Your task to perform on an android device: turn off location Image 0: 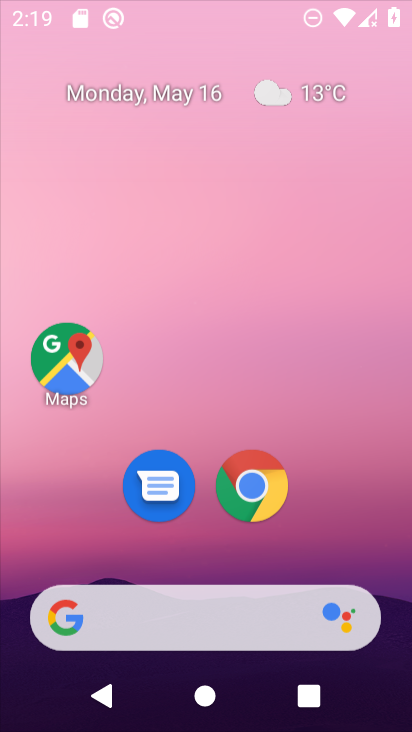
Step 0: click (311, 79)
Your task to perform on an android device: turn off location Image 1: 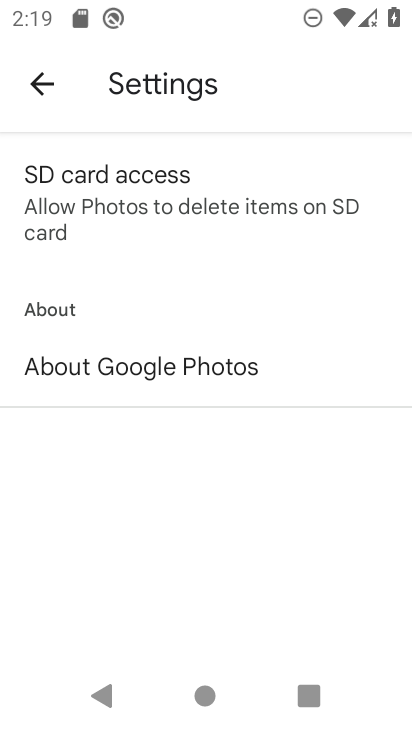
Step 1: click (38, 77)
Your task to perform on an android device: turn off location Image 2: 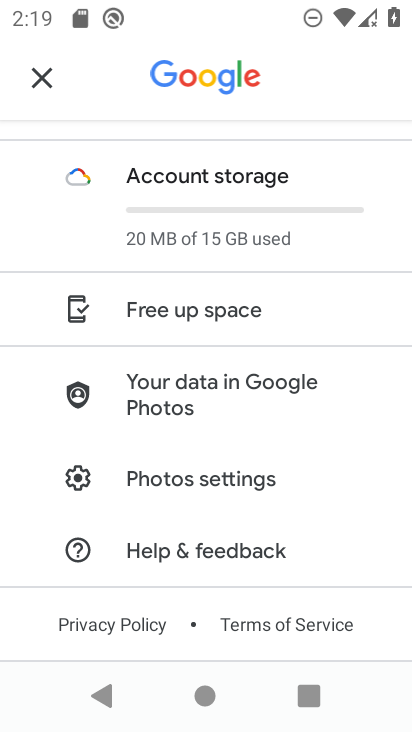
Step 2: press home button
Your task to perform on an android device: turn off location Image 3: 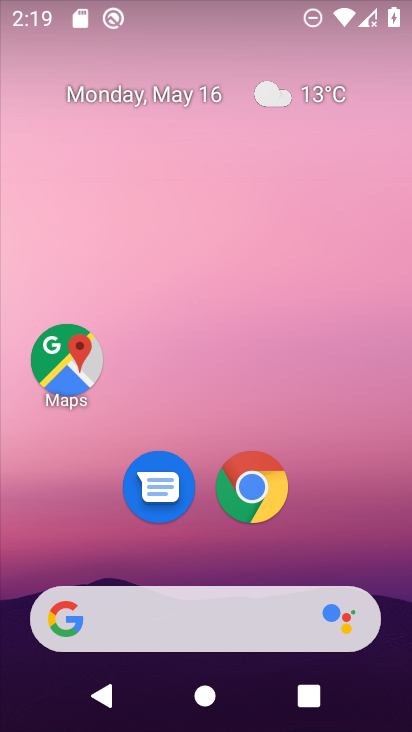
Step 3: drag from (395, 658) to (370, 243)
Your task to perform on an android device: turn off location Image 4: 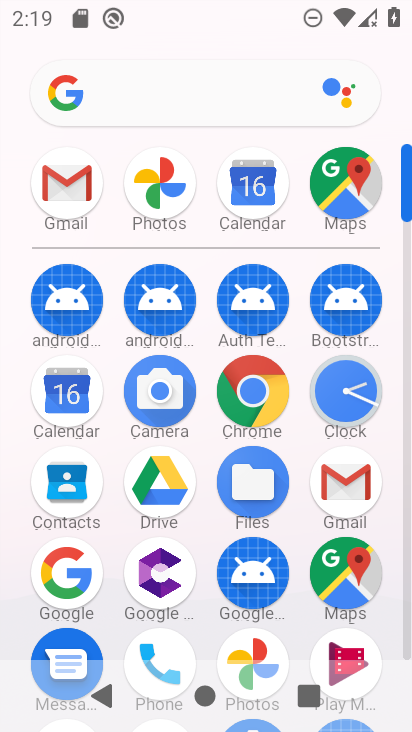
Step 4: click (155, 197)
Your task to perform on an android device: turn off location Image 5: 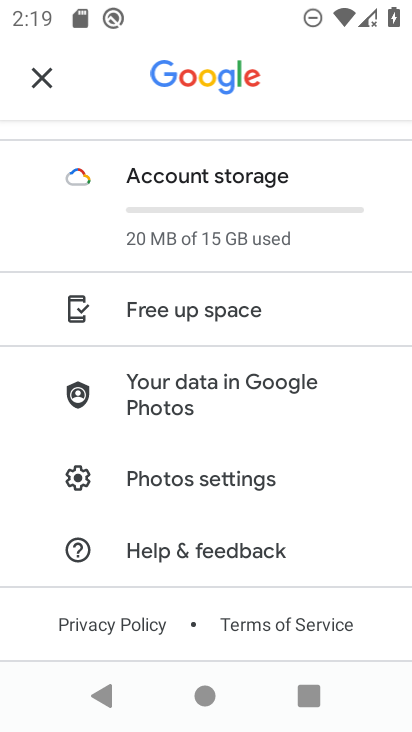
Step 5: press home button
Your task to perform on an android device: turn off location Image 6: 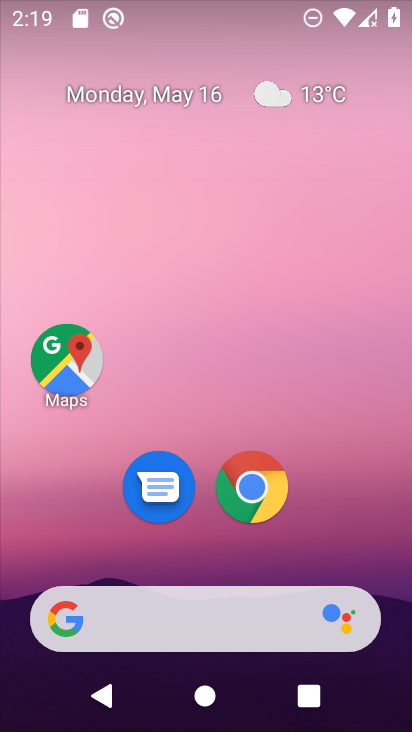
Step 6: drag from (395, 663) to (395, 124)
Your task to perform on an android device: turn off location Image 7: 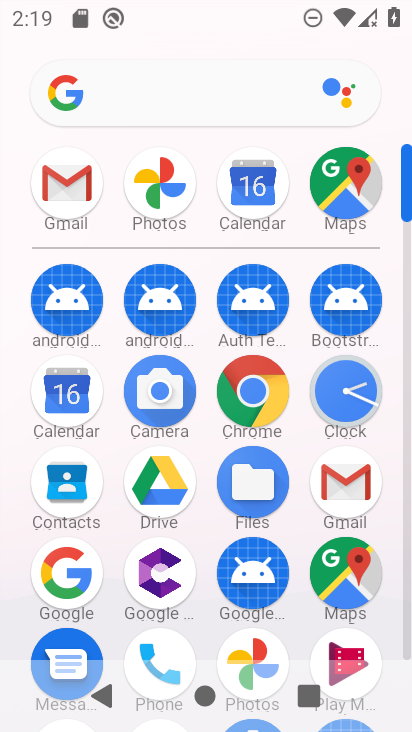
Step 7: click (407, 152)
Your task to perform on an android device: turn off location Image 8: 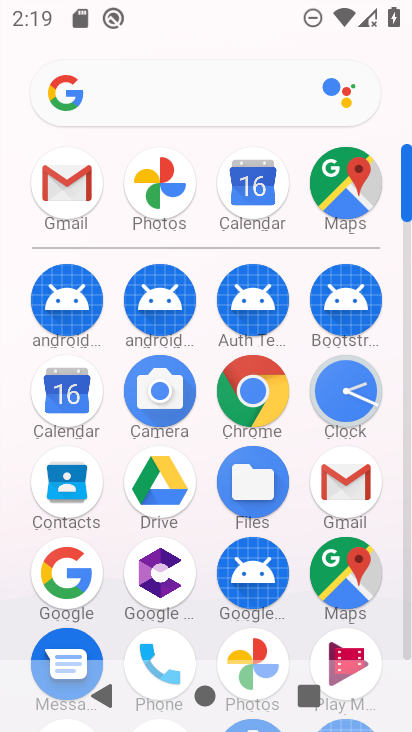
Step 8: drag from (408, 169) to (411, 83)
Your task to perform on an android device: turn off location Image 9: 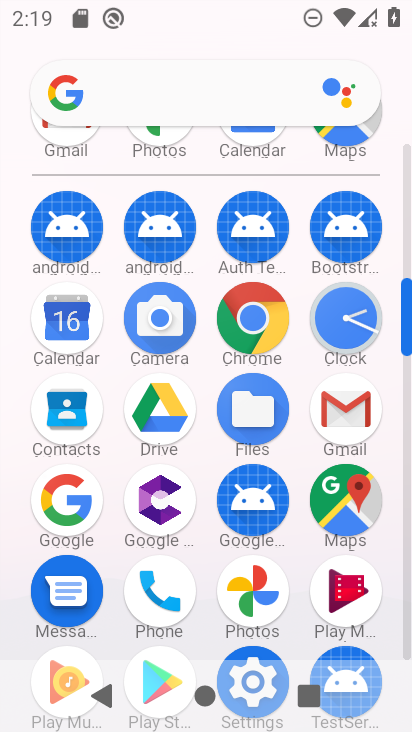
Step 9: click (257, 650)
Your task to perform on an android device: turn off location Image 10: 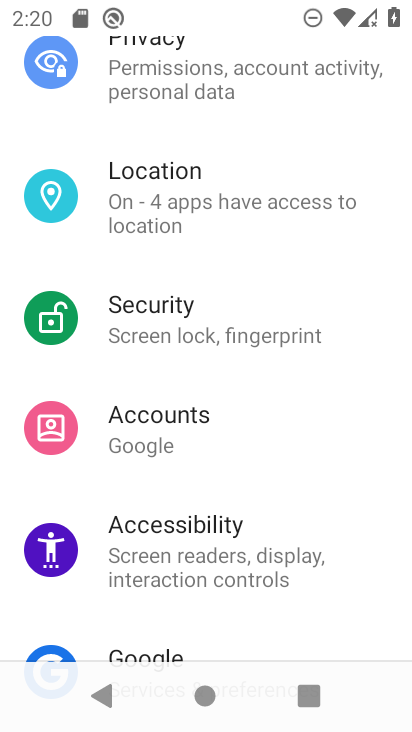
Step 10: click (129, 189)
Your task to perform on an android device: turn off location Image 11: 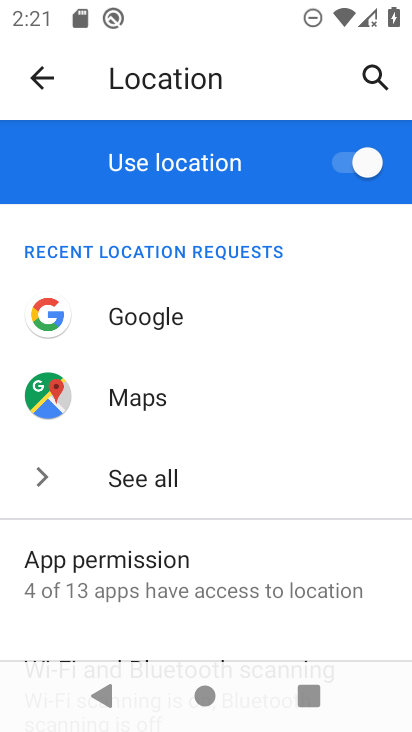
Step 11: click (346, 167)
Your task to perform on an android device: turn off location Image 12: 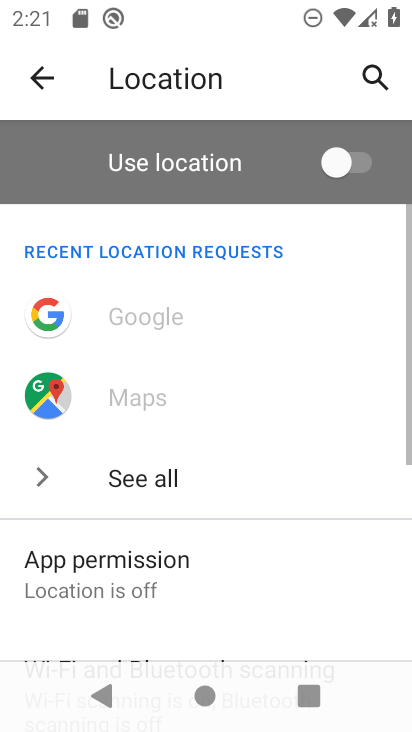
Step 12: task complete